Your task to perform on an android device: check google app version Image 0: 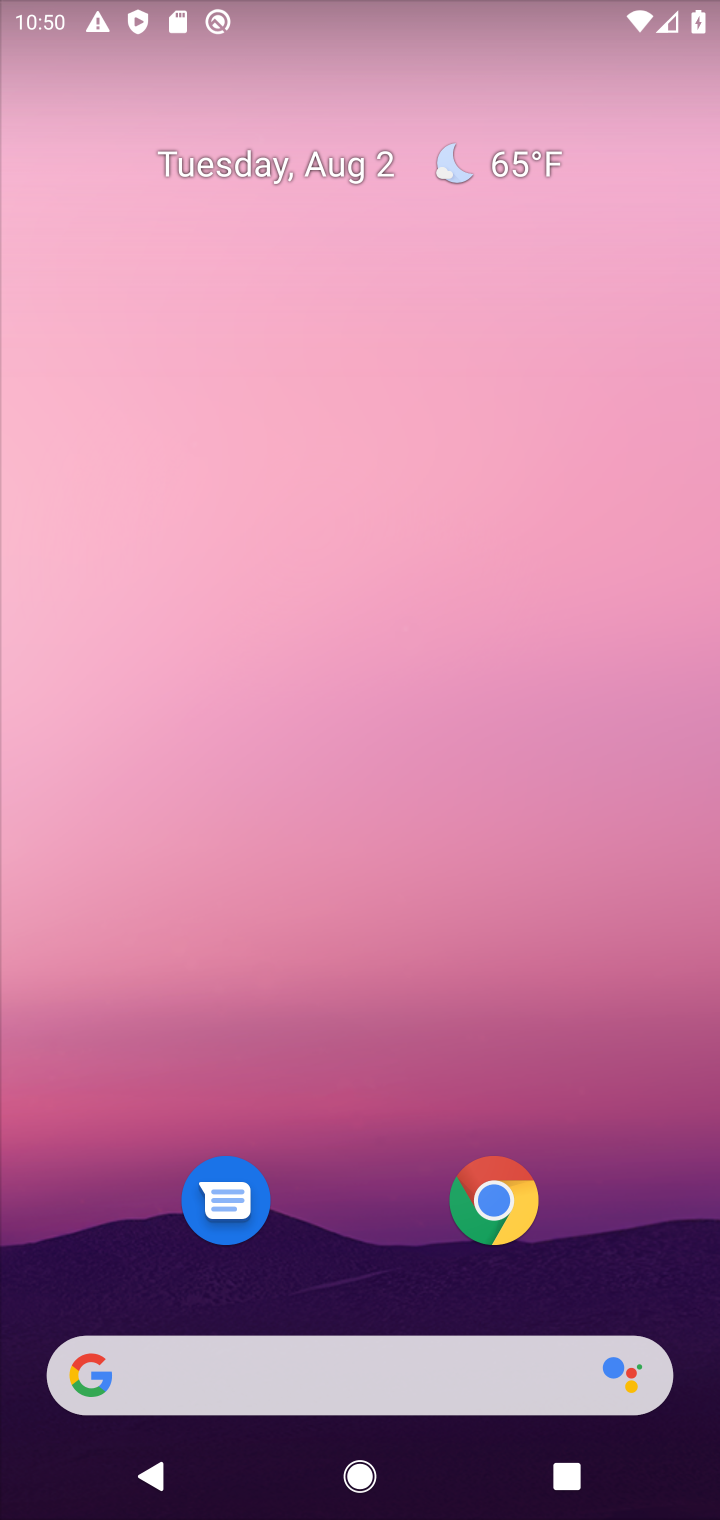
Step 0: click (497, 1198)
Your task to perform on an android device: check google app version Image 1: 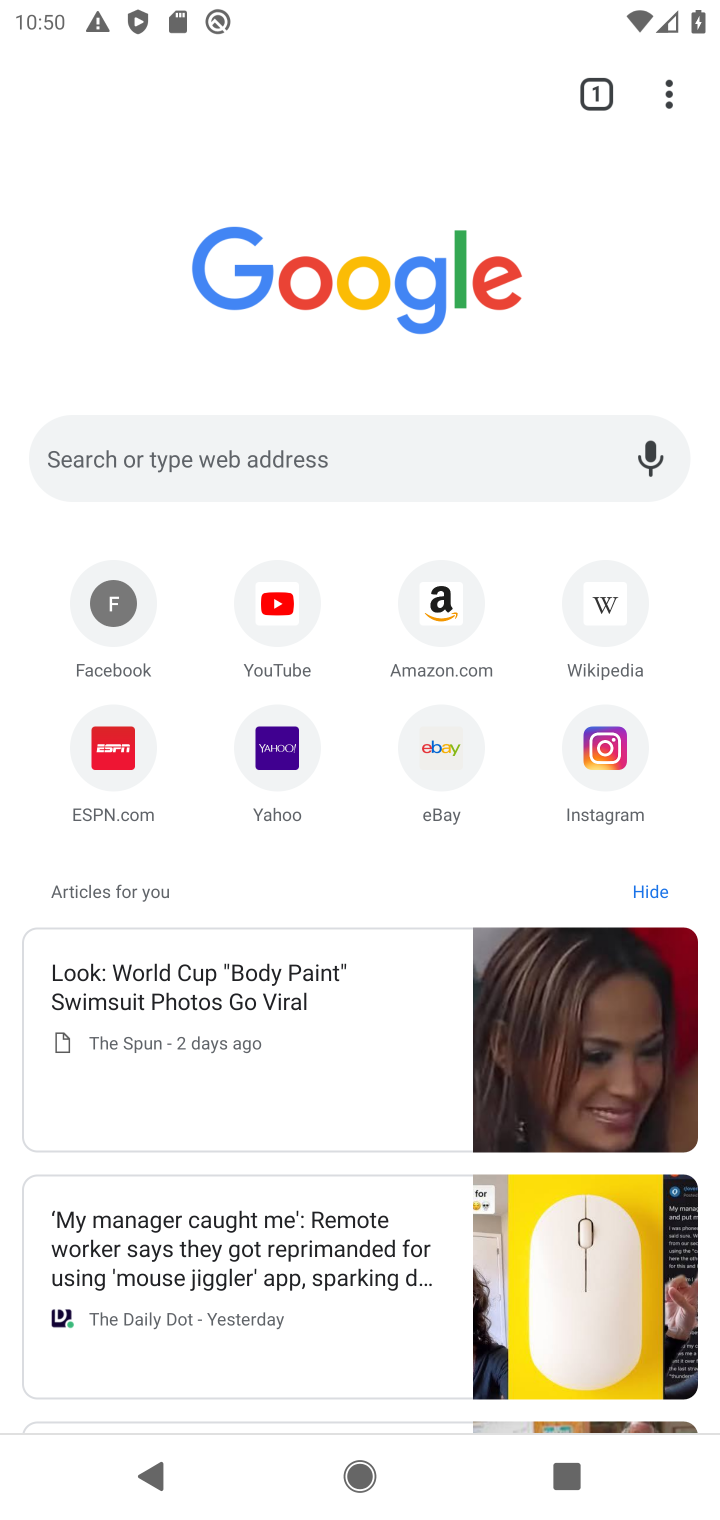
Step 1: click (671, 99)
Your task to perform on an android device: check google app version Image 2: 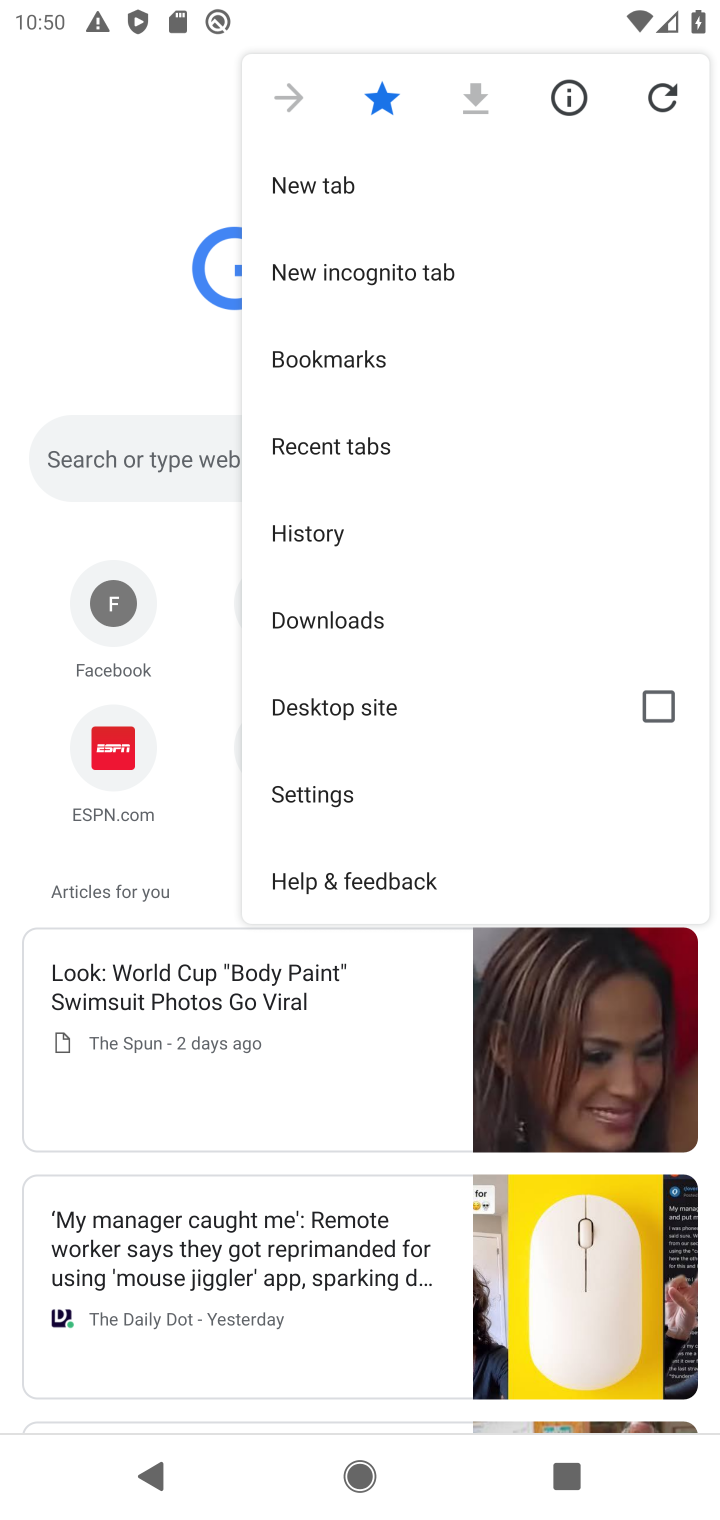
Step 2: click (333, 798)
Your task to perform on an android device: check google app version Image 3: 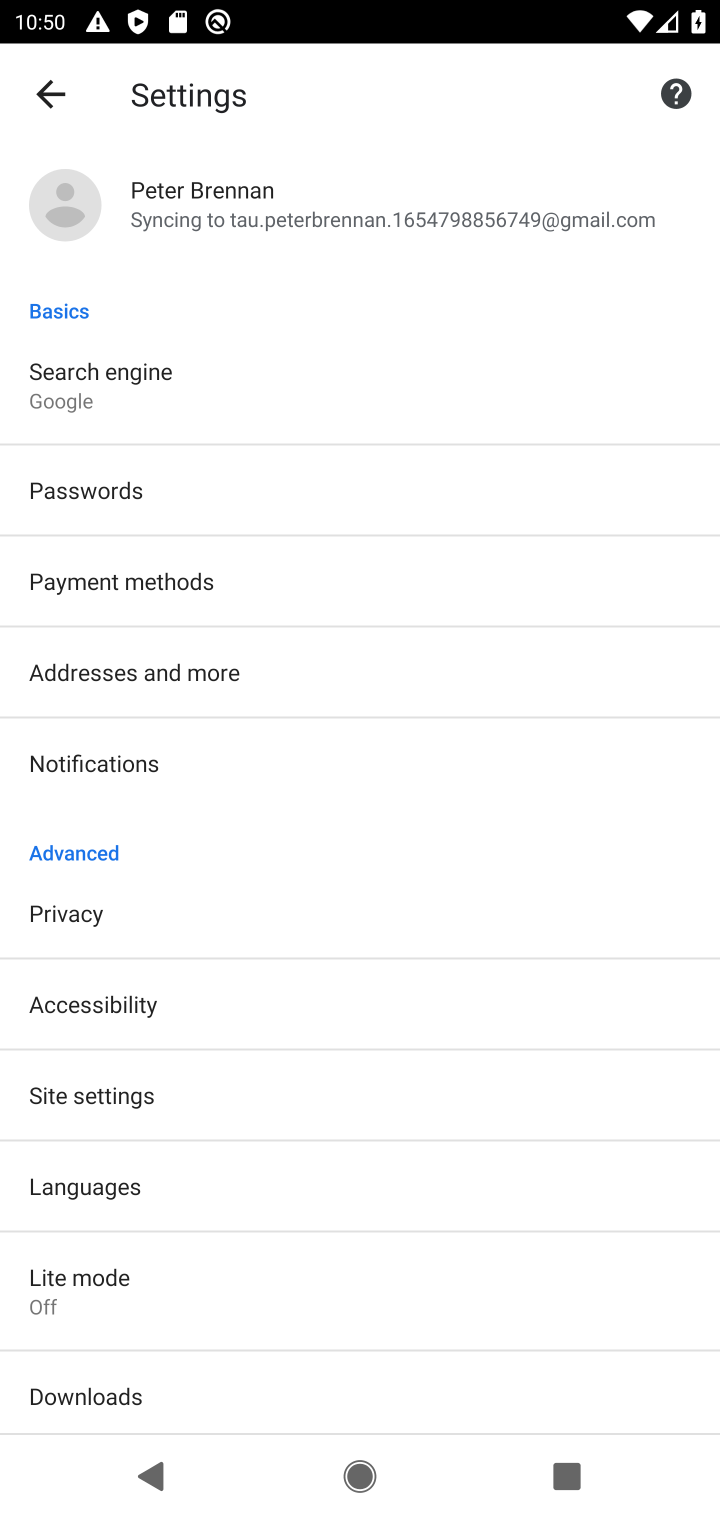
Step 3: drag from (341, 1337) to (333, 407)
Your task to perform on an android device: check google app version Image 4: 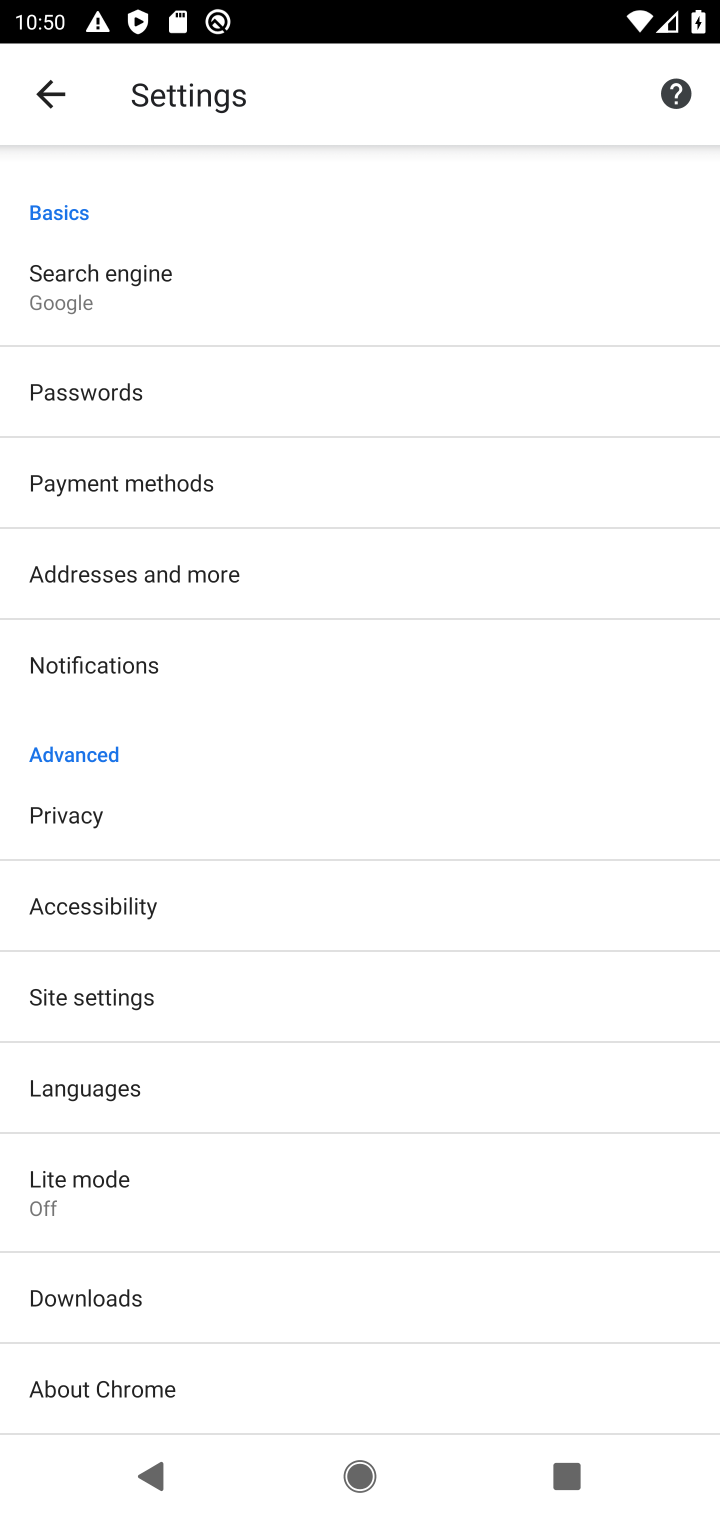
Step 4: click (100, 1377)
Your task to perform on an android device: check google app version Image 5: 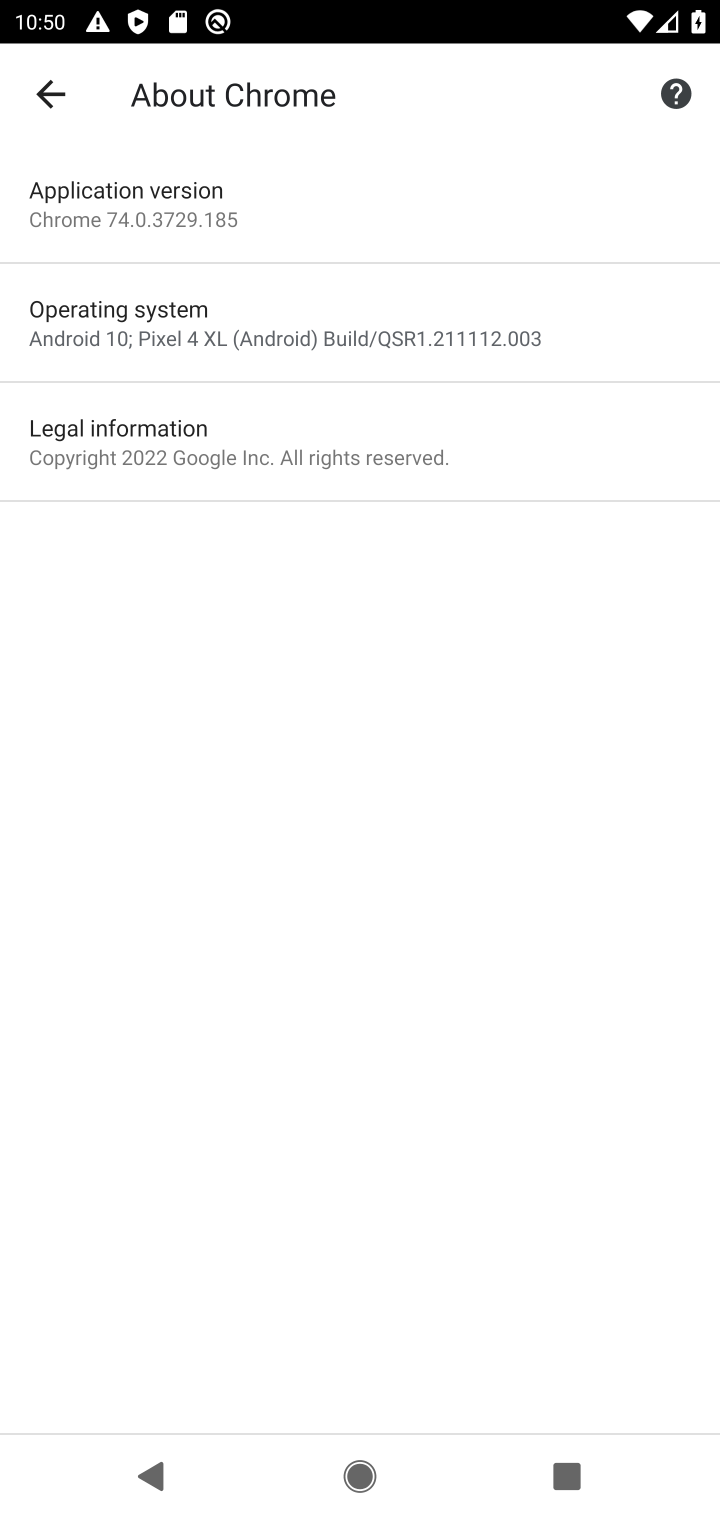
Step 5: click (178, 183)
Your task to perform on an android device: check google app version Image 6: 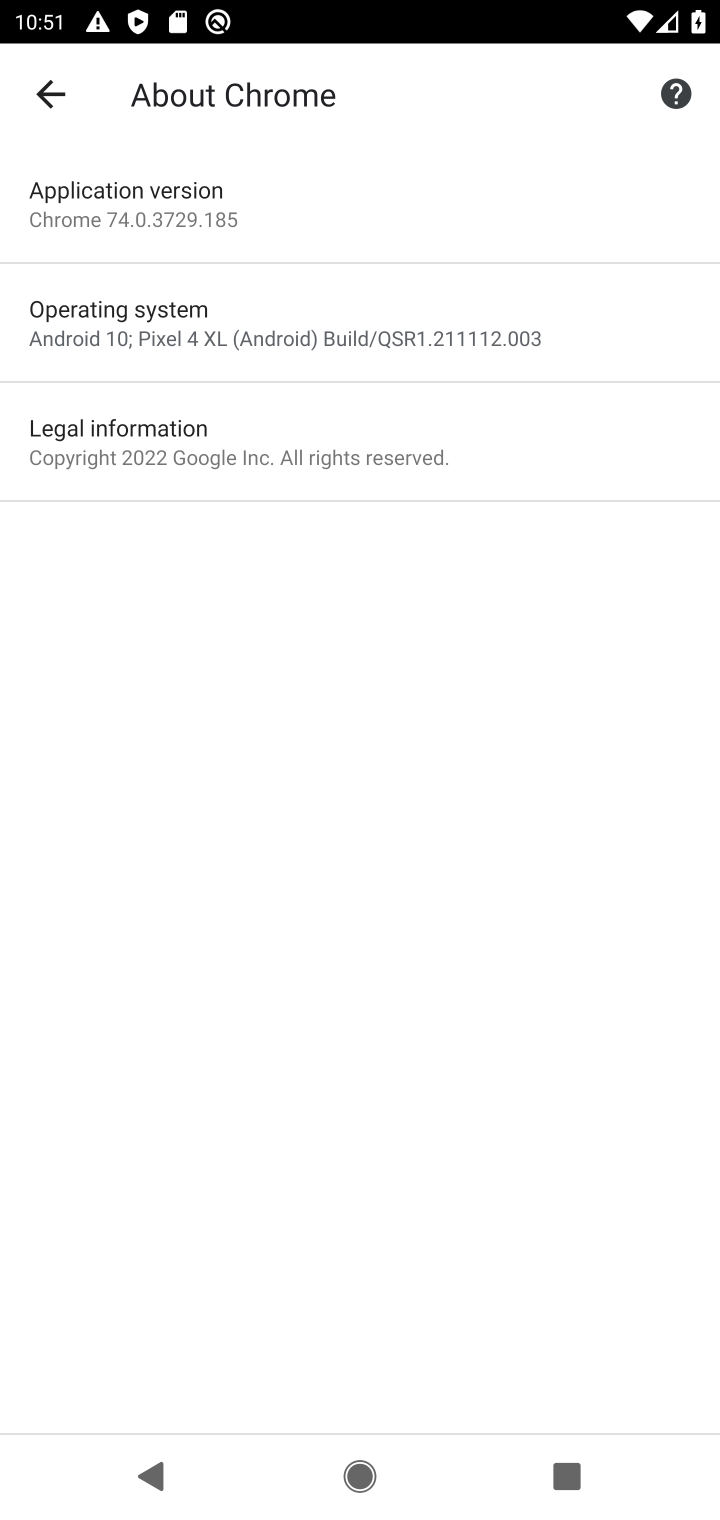
Step 6: task complete